Your task to perform on an android device: turn off notifications in google photos Image 0: 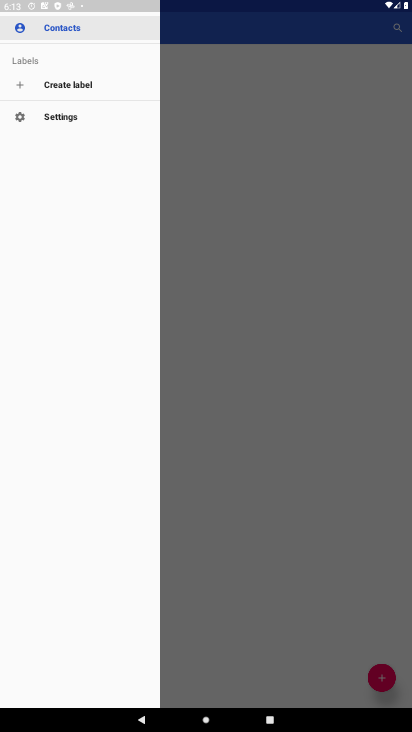
Step 0: drag from (369, 681) to (272, 256)
Your task to perform on an android device: turn off notifications in google photos Image 1: 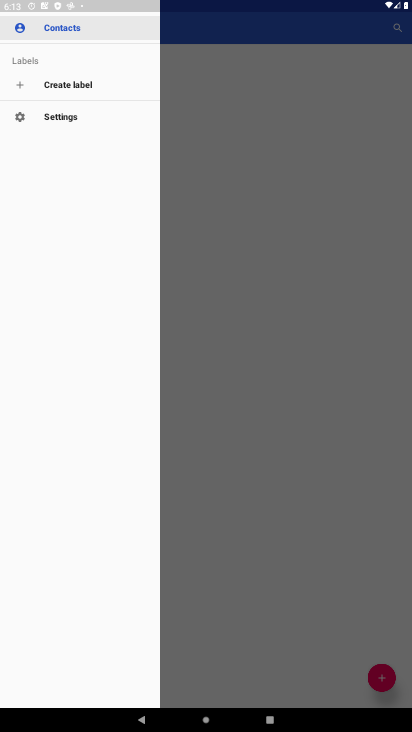
Step 1: press home button
Your task to perform on an android device: turn off notifications in google photos Image 2: 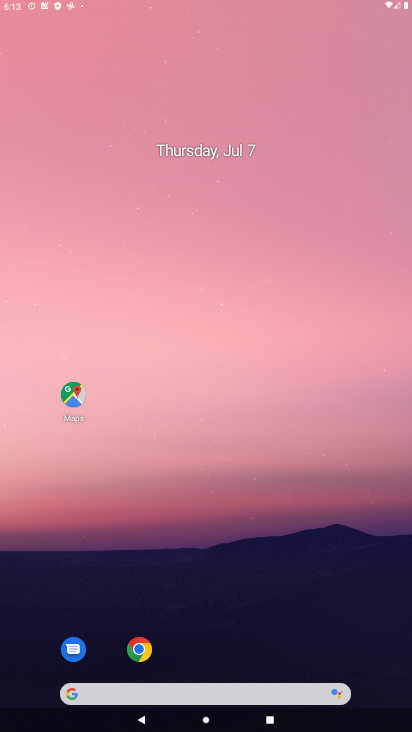
Step 2: drag from (330, 684) to (213, 98)
Your task to perform on an android device: turn off notifications in google photos Image 3: 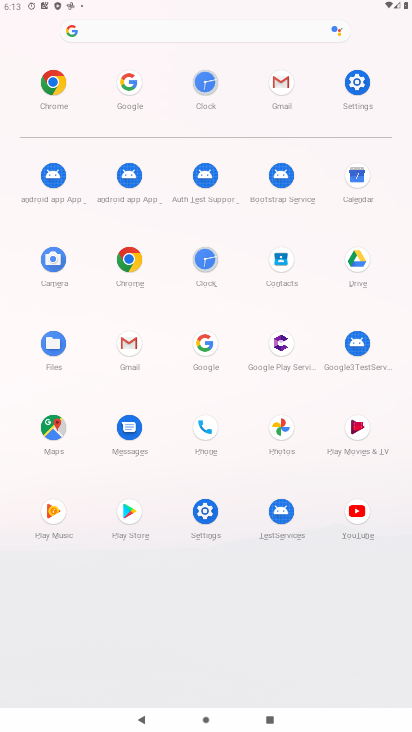
Step 3: click (280, 426)
Your task to perform on an android device: turn off notifications in google photos Image 4: 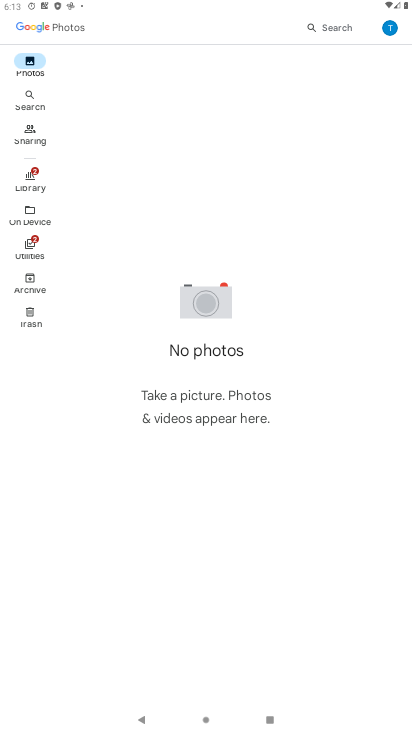
Step 4: click (386, 25)
Your task to perform on an android device: turn off notifications in google photos Image 5: 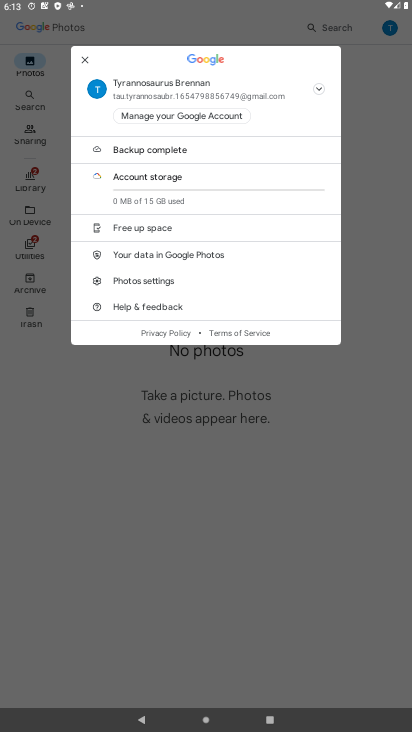
Step 5: click (141, 283)
Your task to perform on an android device: turn off notifications in google photos Image 6: 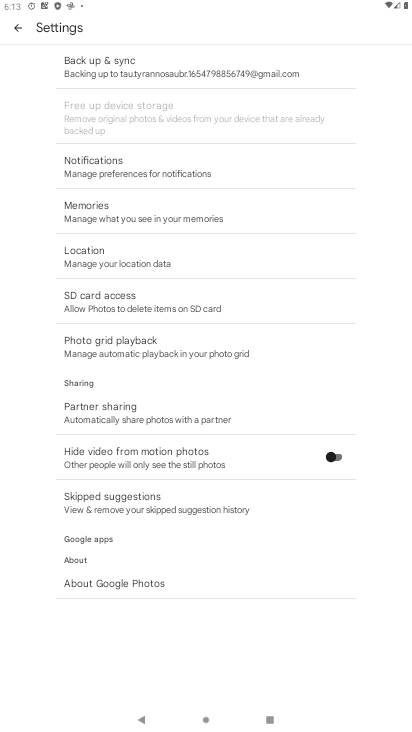
Step 6: click (126, 162)
Your task to perform on an android device: turn off notifications in google photos Image 7: 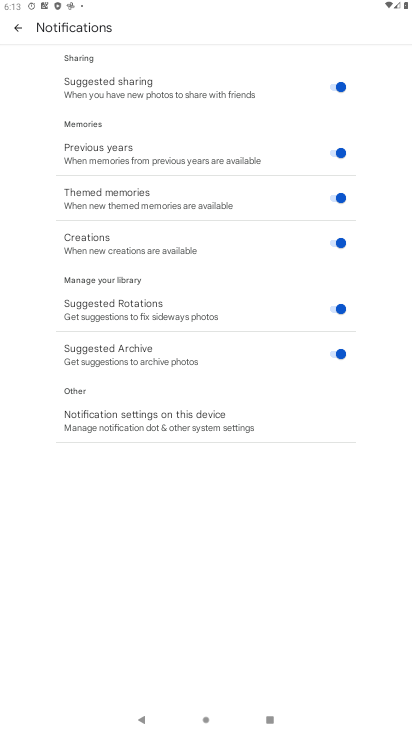
Step 7: task complete